Your task to perform on an android device: Go to Google Image 0: 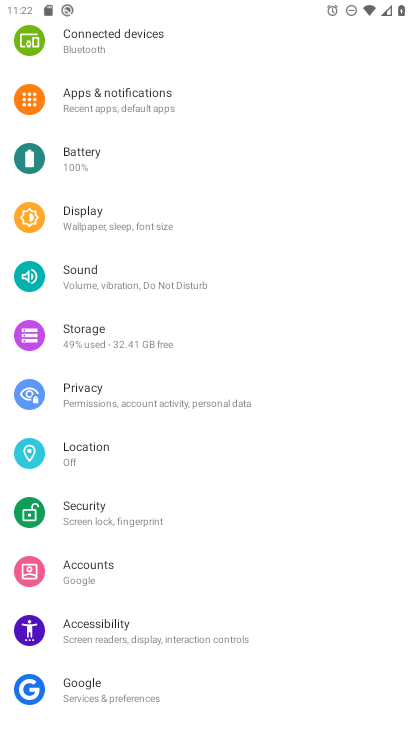
Step 0: press home button
Your task to perform on an android device: Go to Google Image 1: 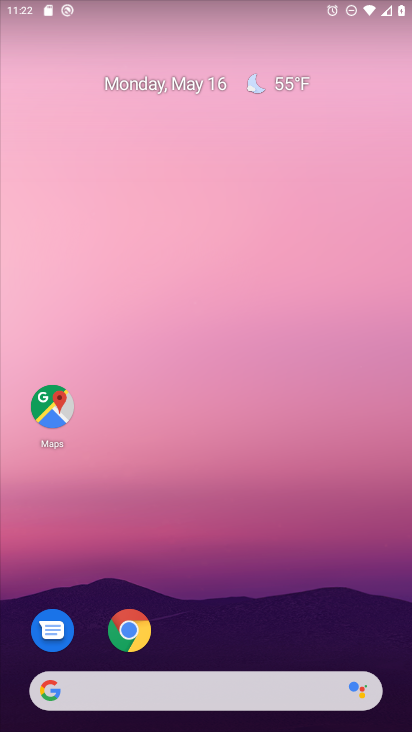
Step 1: drag from (231, 610) to (210, 178)
Your task to perform on an android device: Go to Google Image 2: 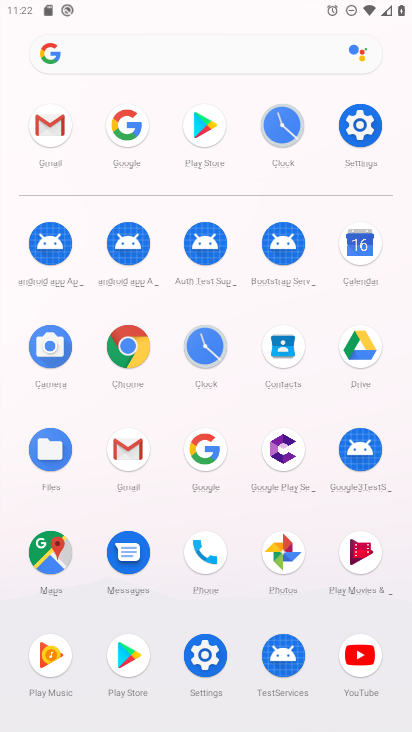
Step 2: click (148, 139)
Your task to perform on an android device: Go to Google Image 3: 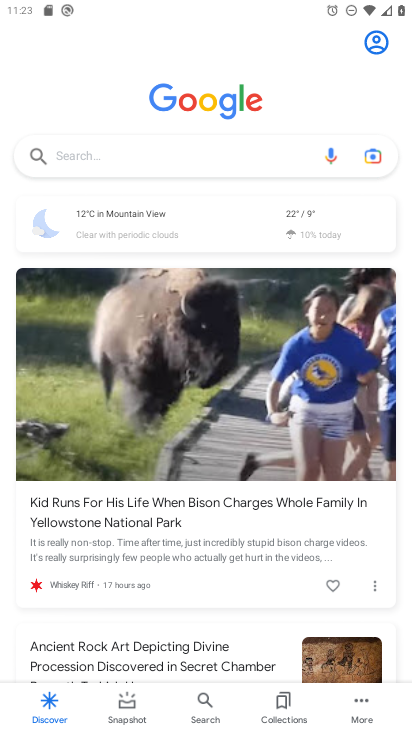
Step 3: task complete